Your task to perform on an android device: turn vacation reply on in the gmail app Image 0: 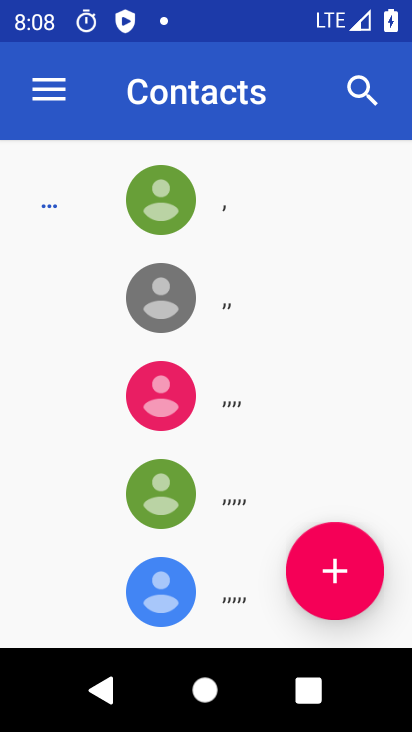
Step 0: press home button
Your task to perform on an android device: turn vacation reply on in the gmail app Image 1: 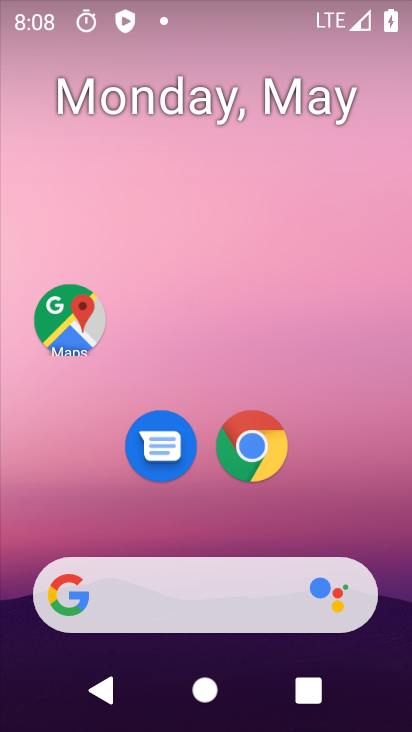
Step 1: drag from (312, 536) to (266, 9)
Your task to perform on an android device: turn vacation reply on in the gmail app Image 2: 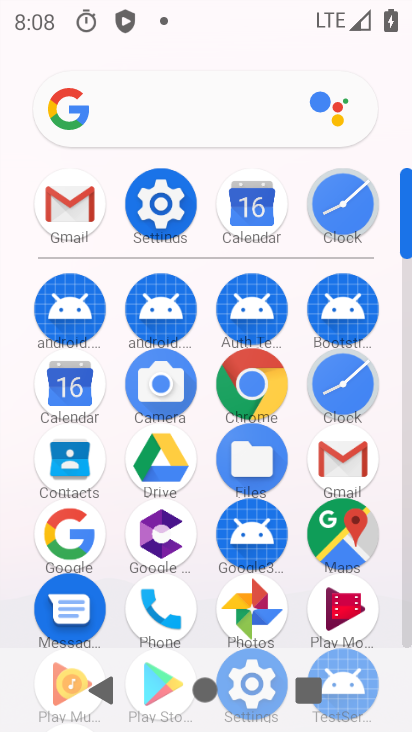
Step 2: click (61, 202)
Your task to perform on an android device: turn vacation reply on in the gmail app Image 3: 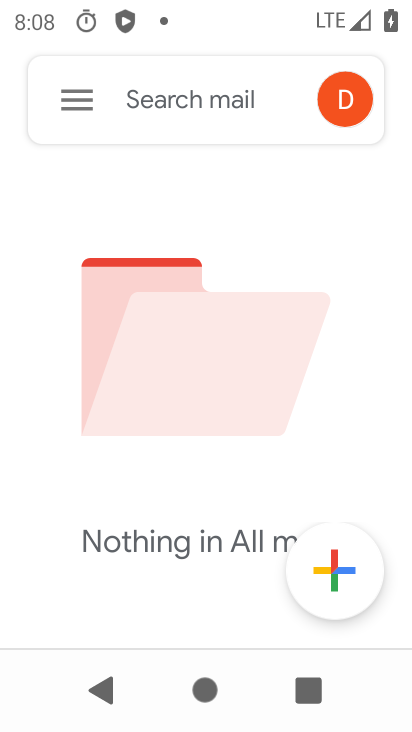
Step 3: click (64, 105)
Your task to perform on an android device: turn vacation reply on in the gmail app Image 4: 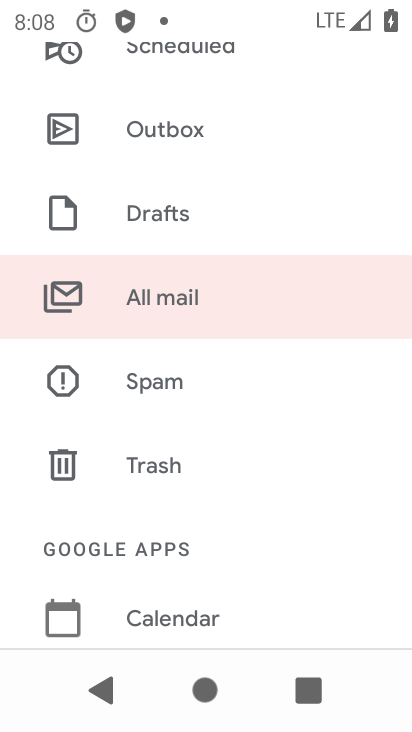
Step 4: drag from (216, 562) to (235, 29)
Your task to perform on an android device: turn vacation reply on in the gmail app Image 5: 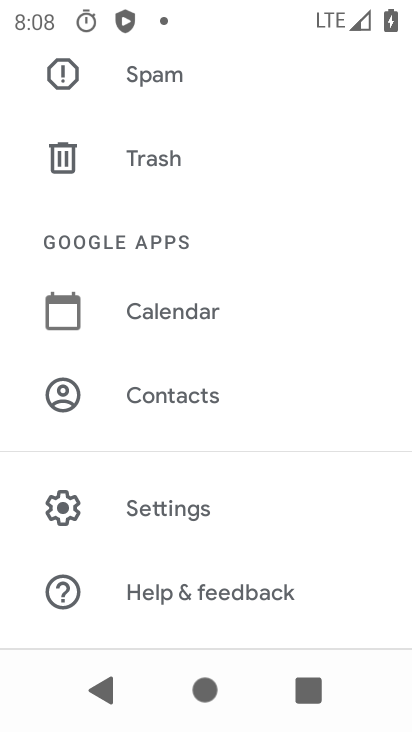
Step 5: click (141, 514)
Your task to perform on an android device: turn vacation reply on in the gmail app Image 6: 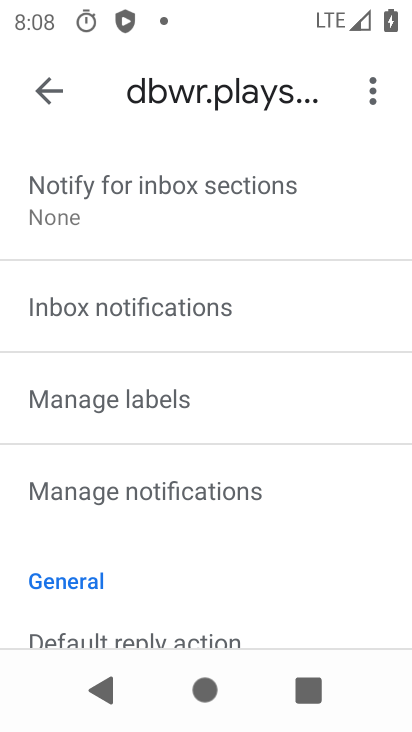
Step 6: drag from (249, 539) to (266, 40)
Your task to perform on an android device: turn vacation reply on in the gmail app Image 7: 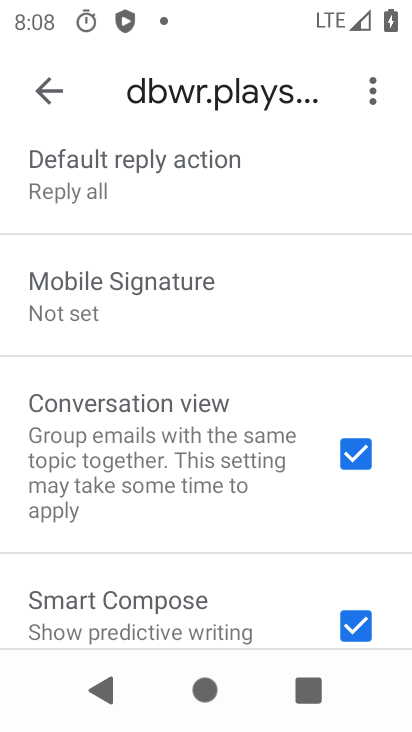
Step 7: drag from (188, 501) to (222, 114)
Your task to perform on an android device: turn vacation reply on in the gmail app Image 8: 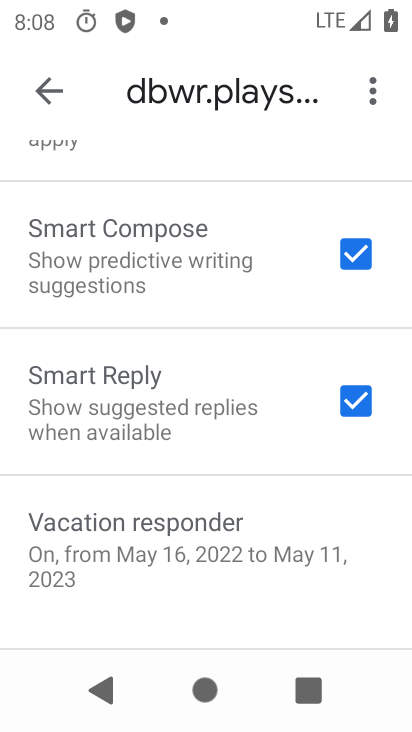
Step 8: click (124, 528)
Your task to perform on an android device: turn vacation reply on in the gmail app Image 9: 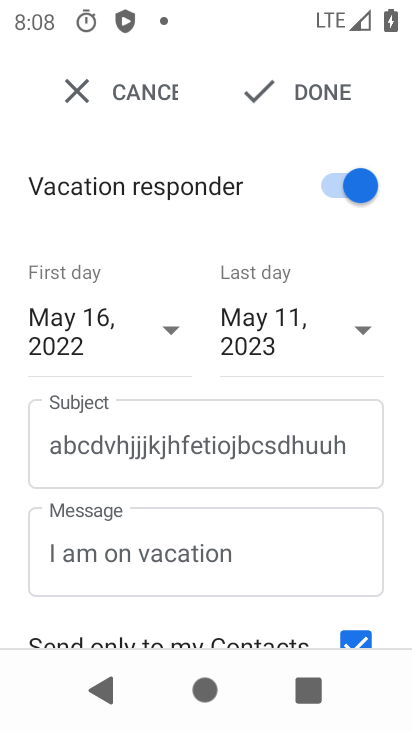
Step 9: click (320, 95)
Your task to perform on an android device: turn vacation reply on in the gmail app Image 10: 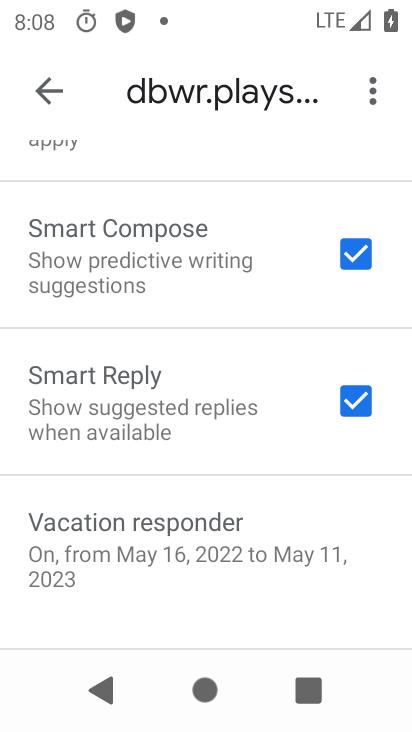
Step 10: task complete